Your task to perform on an android device: Search for sushi restaurants on Maps Image 0: 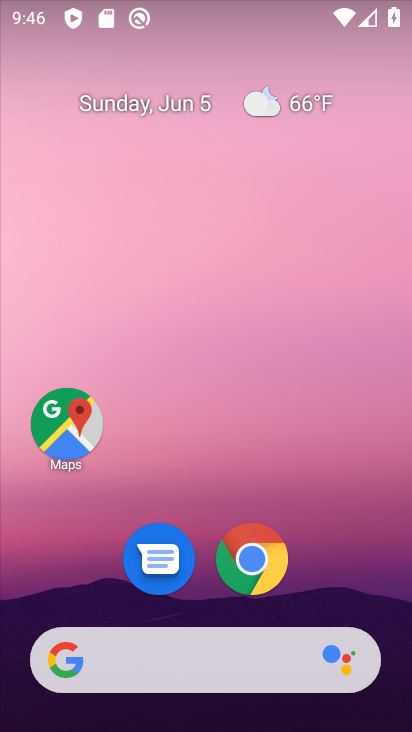
Step 0: press home button
Your task to perform on an android device: Search for sushi restaurants on Maps Image 1: 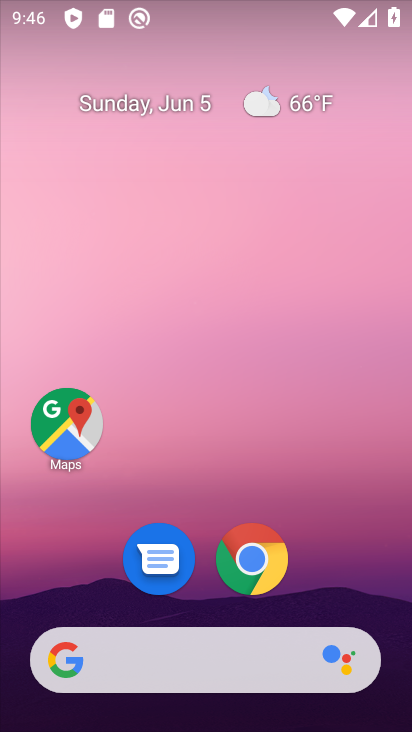
Step 1: click (65, 424)
Your task to perform on an android device: Search for sushi restaurants on Maps Image 2: 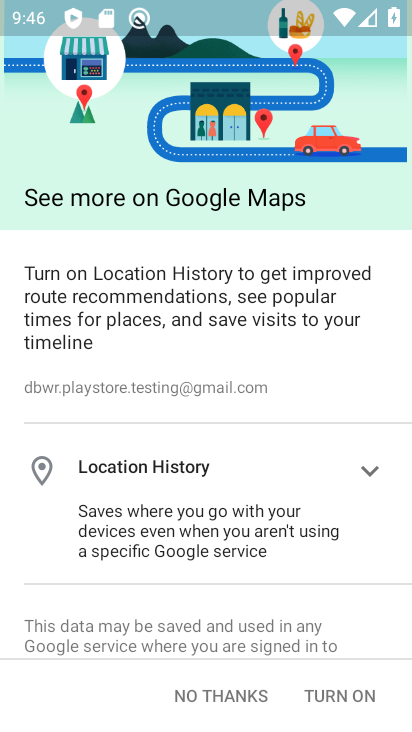
Step 2: drag from (236, 594) to (269, 128)
Your task to perform on an android device: Search for sushi restaurants on Maps Image 3: 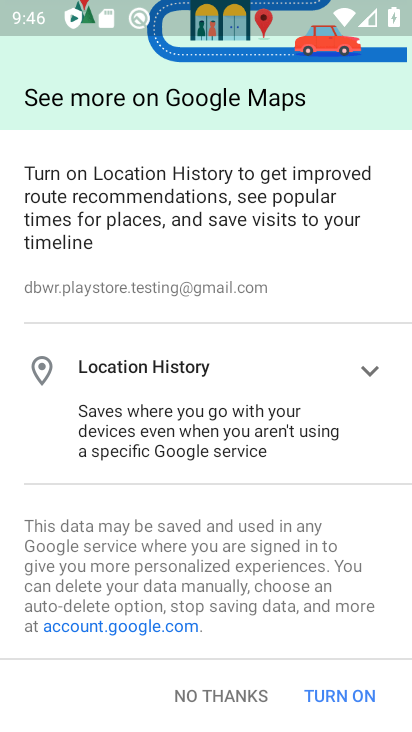
Step 3: click (342, 699)
Your task to perform on an android device: Search for sushi restaurants on Maps Image 4: 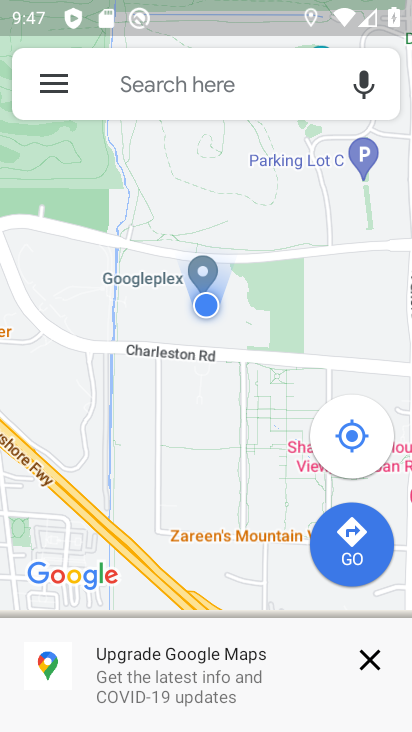
Step 4: click (365, 652)
Your task to perform on an android device: Search for sushi restaurants on Maps Image 5: 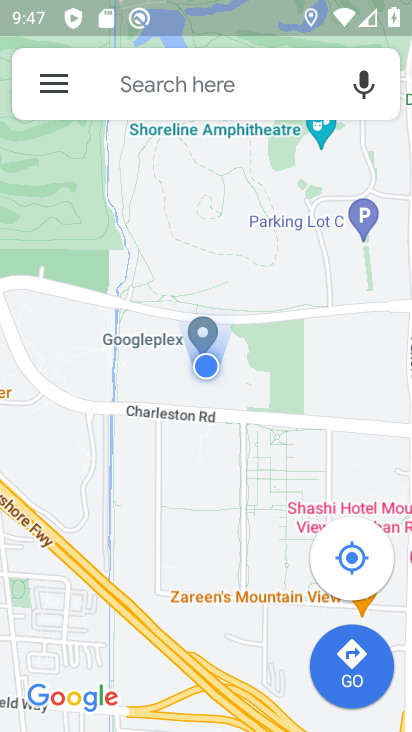
Step 5: click (189, 79)
Your task to perform on an android device: Search for sushi restaurants on Maps Image 6: 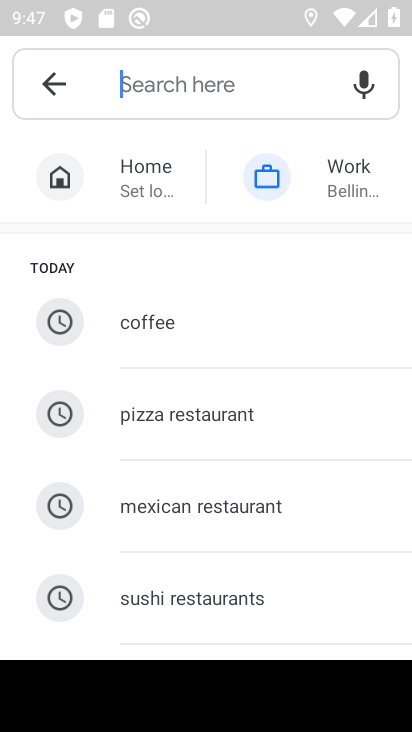
Step 6: click (182, 592)
Your task to perform on an android device: Search for sushi restaurants on Maps Image 7: 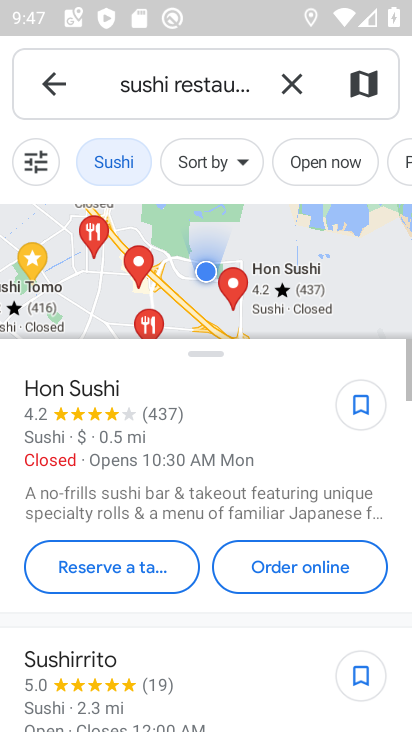
Step 7: task complete